Your task to perform on an android device: Open battery settings Image 0: 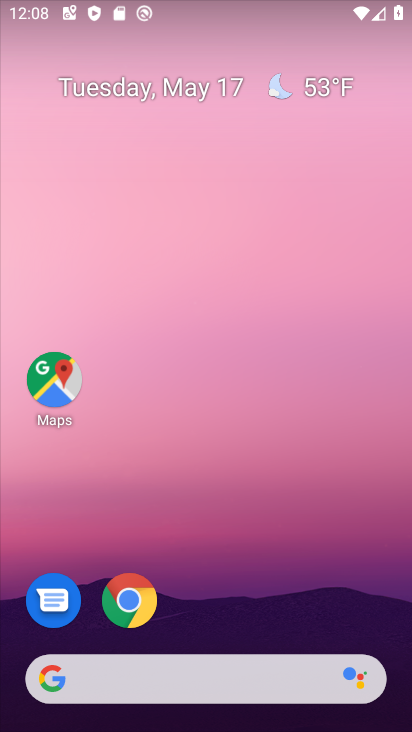
Step 0: drag from (229, 623) to (201, 154)
Your task to perform on an android device: Open battery settings Image 1: 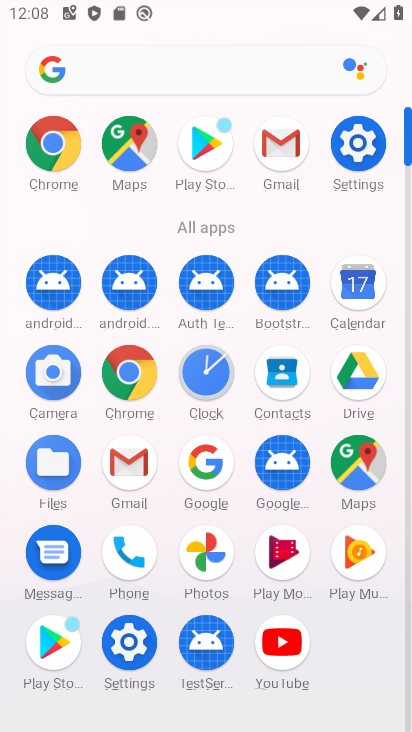
Step 1: click (348, 121)
Your task to perform on an android device: Open battery settings Image 2: 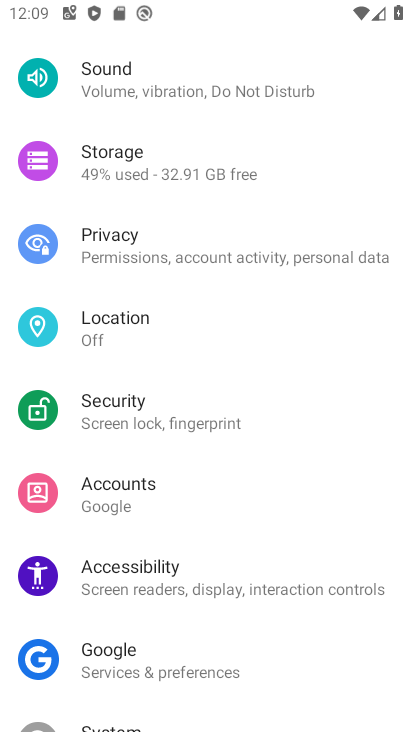
Step 2: drag from (237, 120) to (196, 546)
Your task to perform on an android device: Open battery settings Image 3: 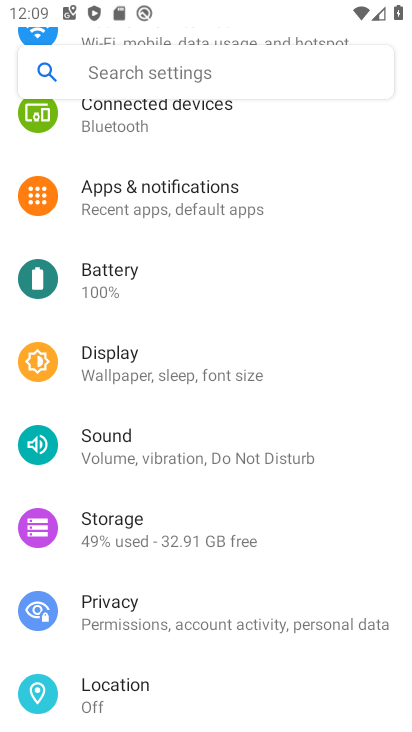
Step 3: click (176, 259)
Your task to perform on an android device: Open battery settings Image 4: 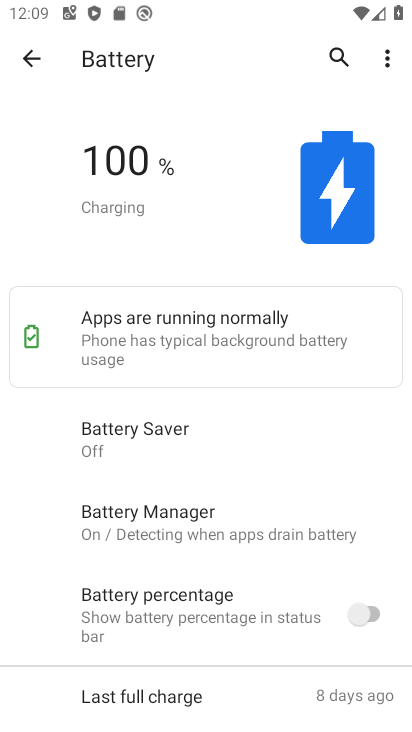
Step 4: task complete